Your task to perform on an android device: toggle javascript in the chrome app Image 0: 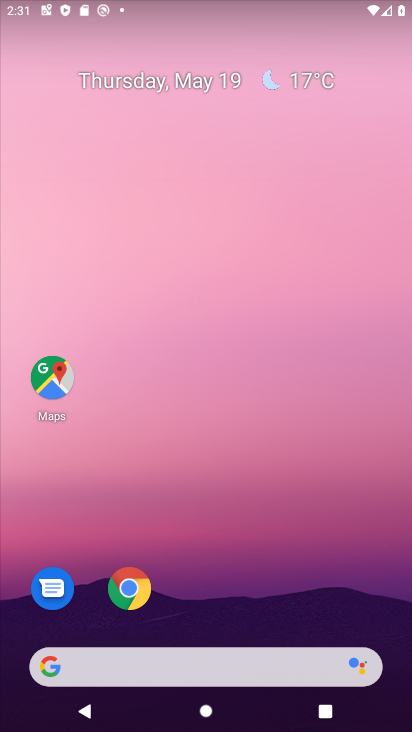
Step 0: click (131, 595)
Your task to perform on an android device: toggle javascript in the chrome app Image 1: 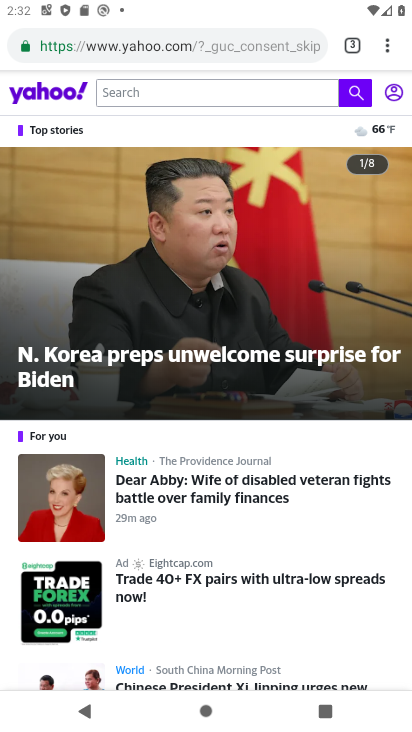
Step 1: drag from (387, 38) to (255, 556)
Your task to perform on an android device: toggle javascript in the chrome app Image 2: 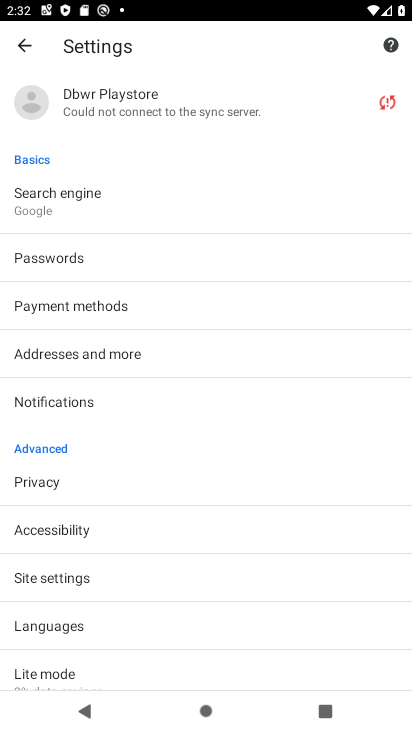
Step 2: click (96, 579)
Your task to perform on an android device: toggle javascript in the chrome app Image 3: 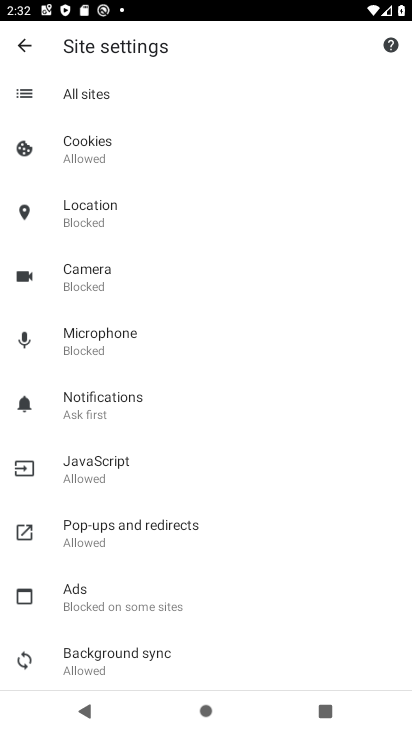
Step 3: click (141, 466)
Your task to perform on an android device: toggle javascript in the chrome app Image 4: 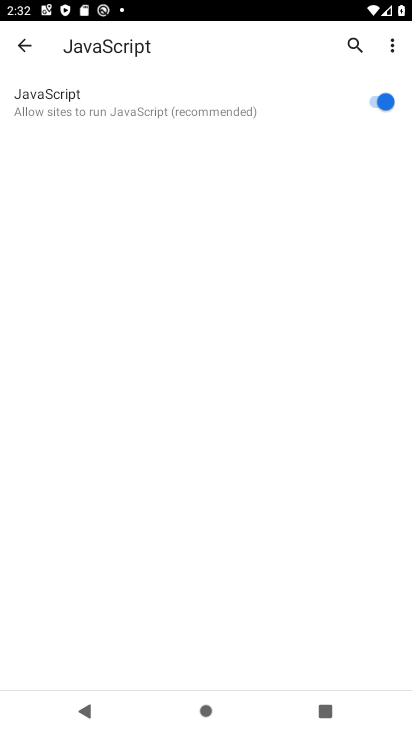
Step 4: click (365, 95)
Your task to perform on an android device: toggle javascript in the chrome app Image 5: 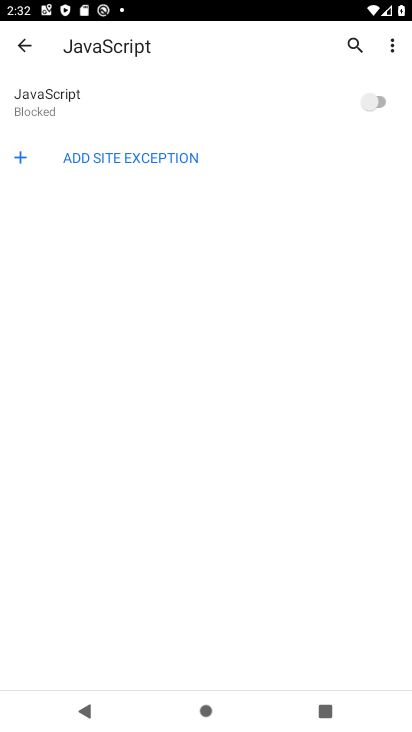
Step 5: task complete